Your task to perform on an android device: turn off data saver in the chrome app Image 0: 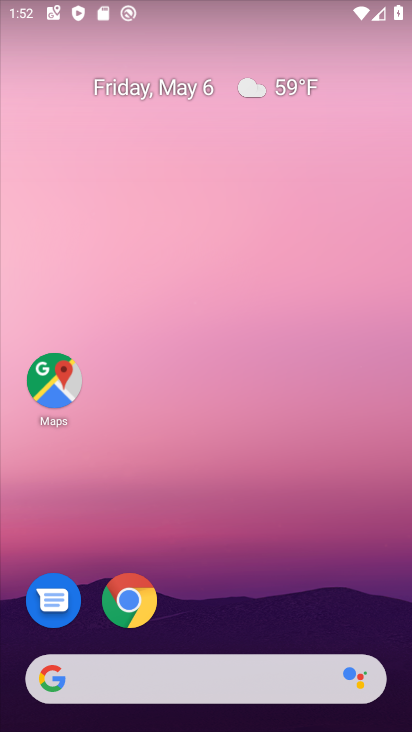
Step 0: click (129, 603)
Your task to perform on an android device: turn off data saver in the chrome app Image 1: 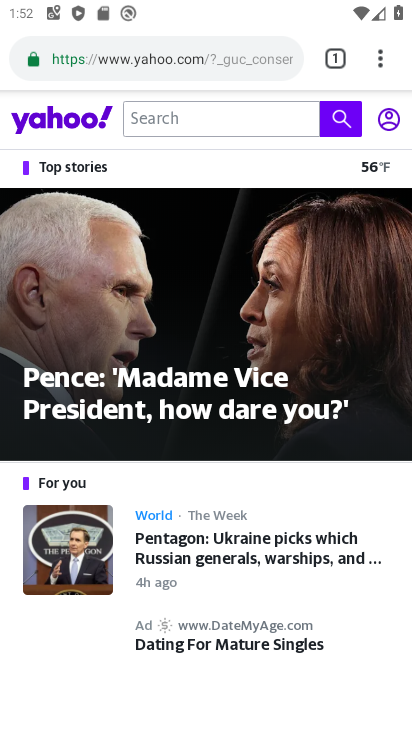
Step 1: click (372, 65)
Your task to perform on an android device: turn off data saver in the chrome app Image 2: 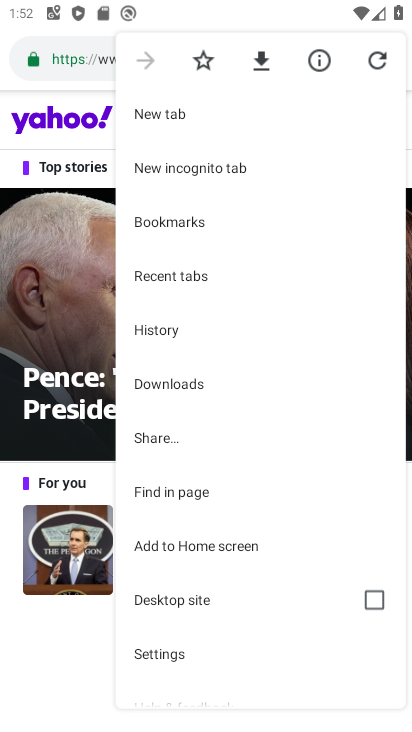
Step 2: click (155, 642)
Your task to perform on an android device: turn off data saver in the chrome app Image 3: 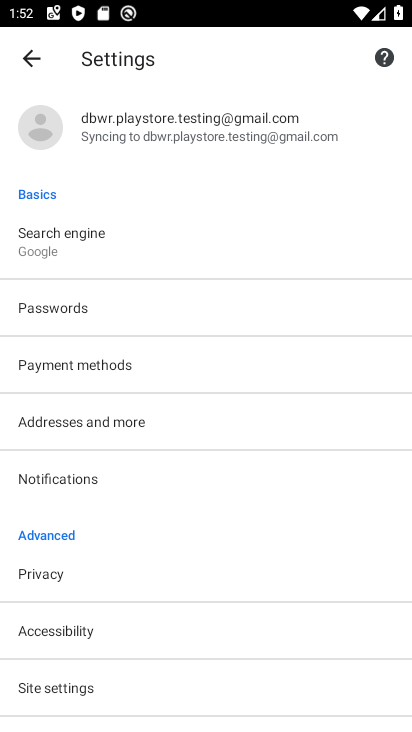
Step 3: drag from (106, 599) to (159, 203)
Your task to perform on an android device: turn off data saver in the chrome app Image 4: 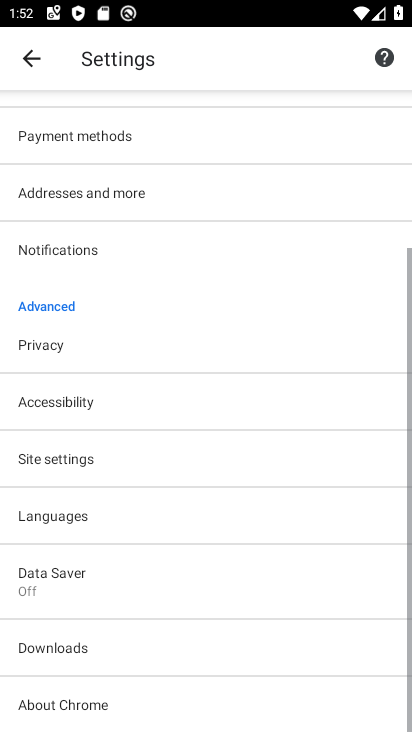
Step 4: click (62, 591)
Your task to perform on an android device: turn off data saver in the chrome app Image 5: 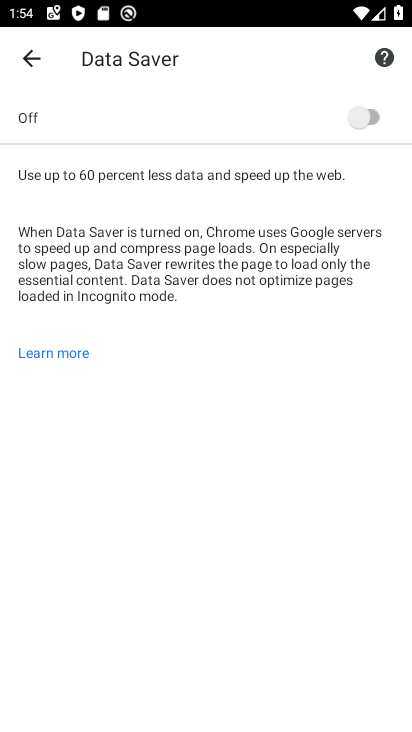
Step 5: task complete